Your task to perform on an android device: Go to Android settings Image 0: 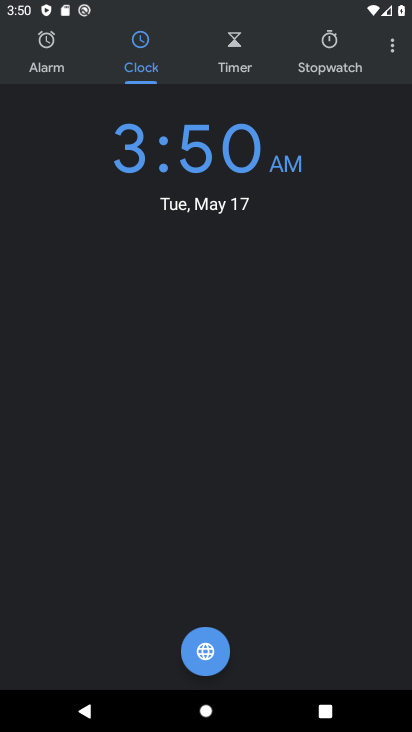
Step 0: press back button
Your task to perform on an android device: Go to Android settings Image 1: 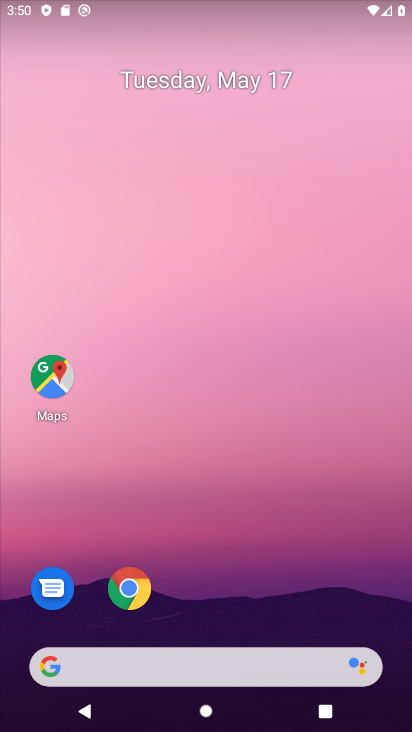
Step 1: drag from (204, 577) to (282, 49)
Your task to perform on an android device: Go to Android settings Image 2: 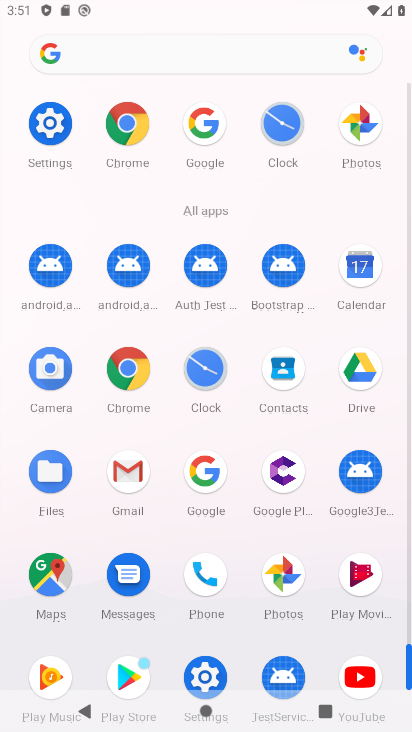
Step 2: click (51, 120)
Your task to perform on an android device: Go to Android settings Image 3: 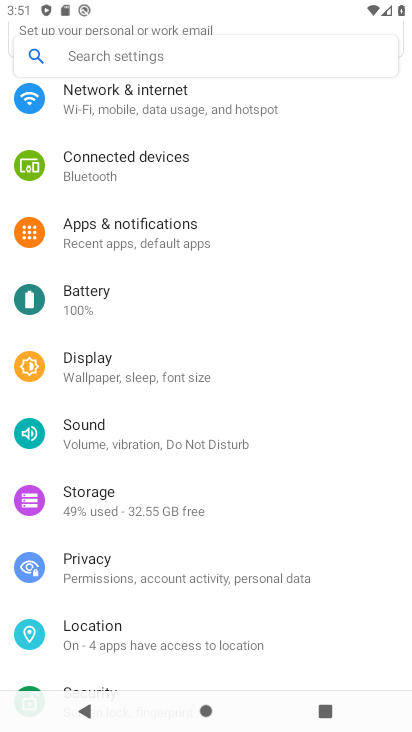
Step 3: task complete